Your task to perform on an android device: Set the phone to "Do not disturb". Image 0: 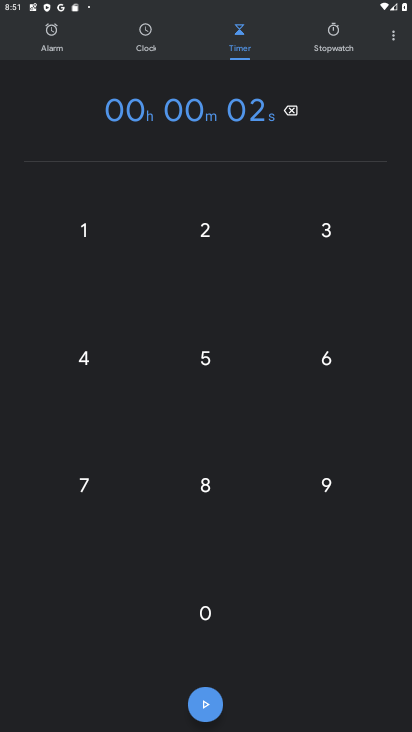
Step 0: press home button
Your task to perform on an android device: Set the phone to "Do not disturb". Image 1: 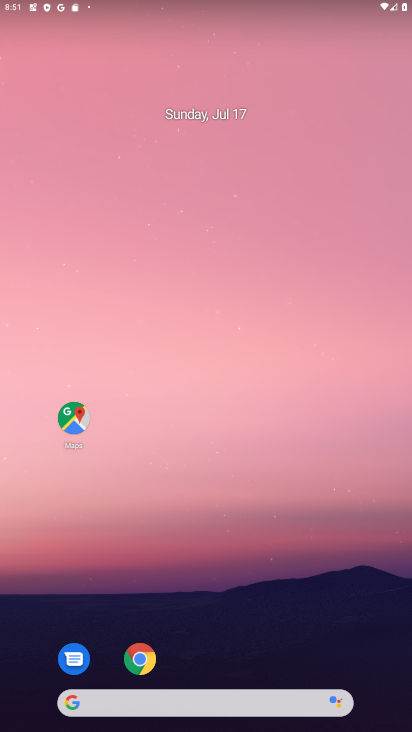
Step 1: drag from (262, 641) to (254, 318)
Your task to perform on an android device: Set the phone to "Do not disturb". Image 2: 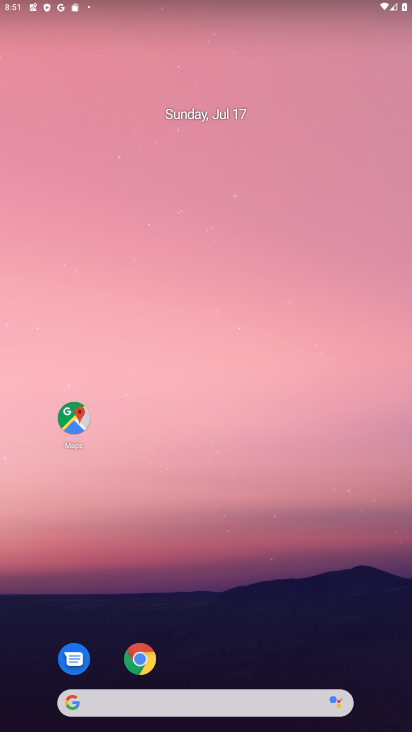
Step 2: drag from (227, 622) to (274, 300)
Your task to perform on an android device: Set the phone to "Do not disturb". Image 3: 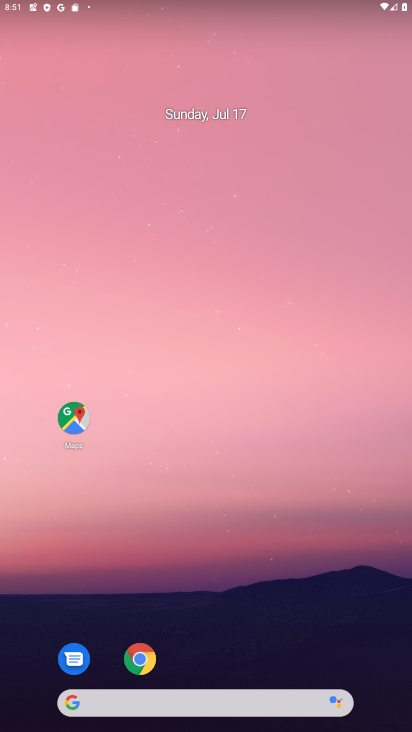
Step 3: drag from (249, 623) to (281, 213)
Your task to perform on an android device: Set the phone to "Do not disturb". Image 4: 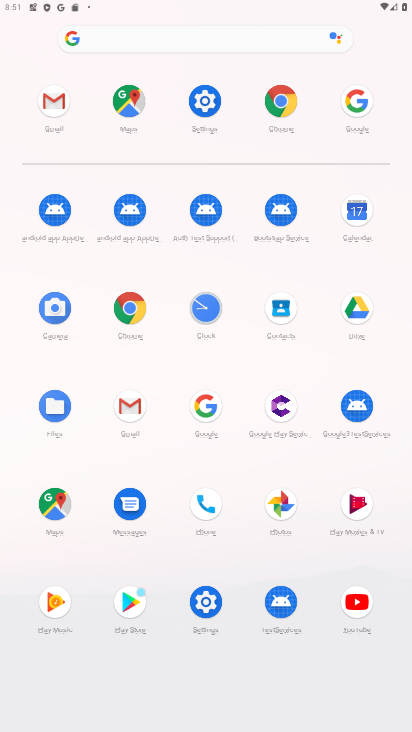
Step 4: press home button
Your task to perform on an android device: Set the phone to "Do not disturb". Image 5: 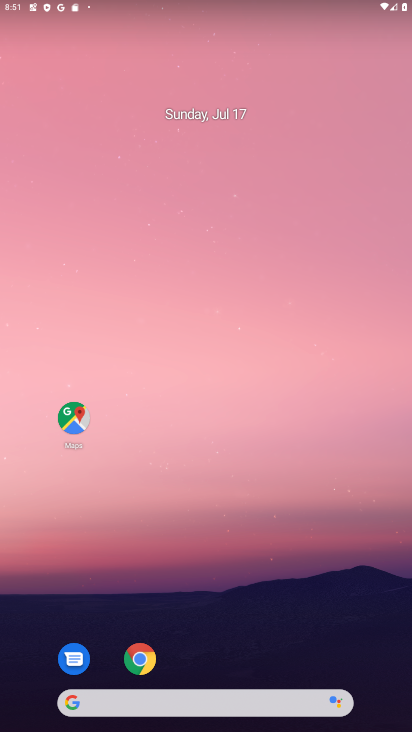
Step 5: drag from (266, 0) to (288, 640)
Your task to perform on an android device: Set the phone to "Do not disturb". Image 6: 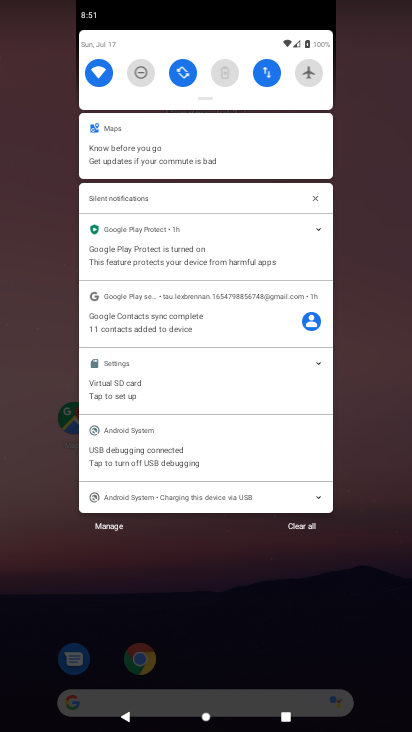
Step 6: click (132, 66)
Your task to perform on an android device: Set the phone to "Do not disturb". Image 7: 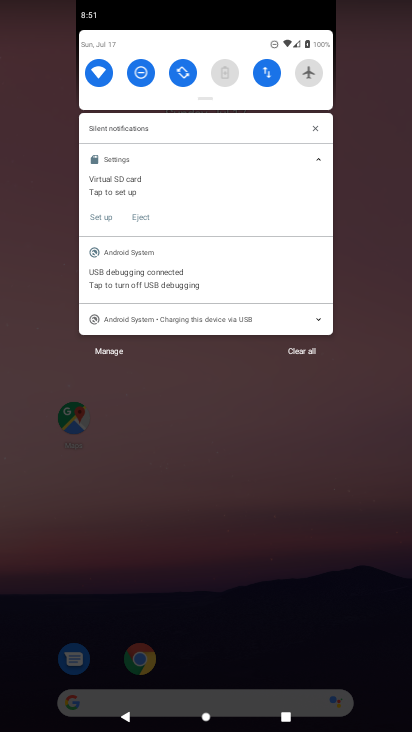
Step 7: click (239, 457)
Your task to perform on an android device: Set the phone to "Do not disturb". Image 8: 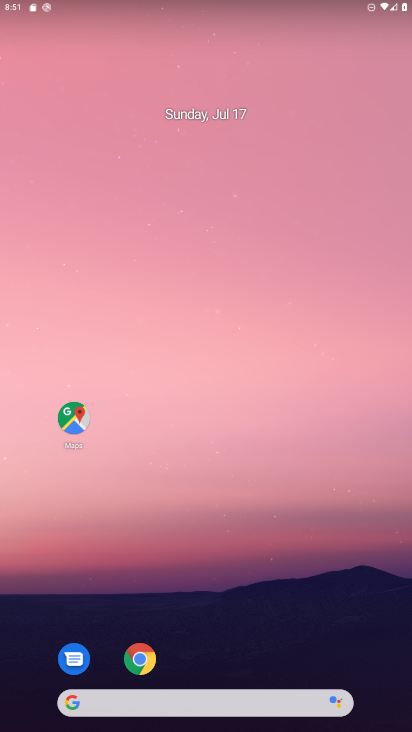
Step 8: task complete